Your task to perform on an android device: toggle wifi Image 0: 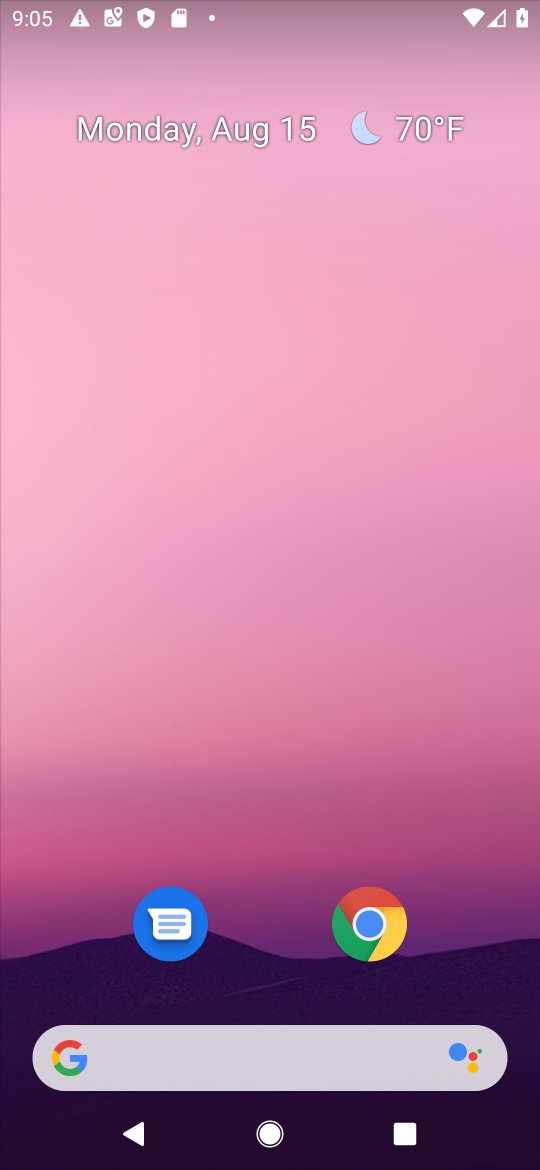
Step 0: drag from (494, 979) to (460, 207)
Your task to perform on an android device: toggle wifi Image 1: 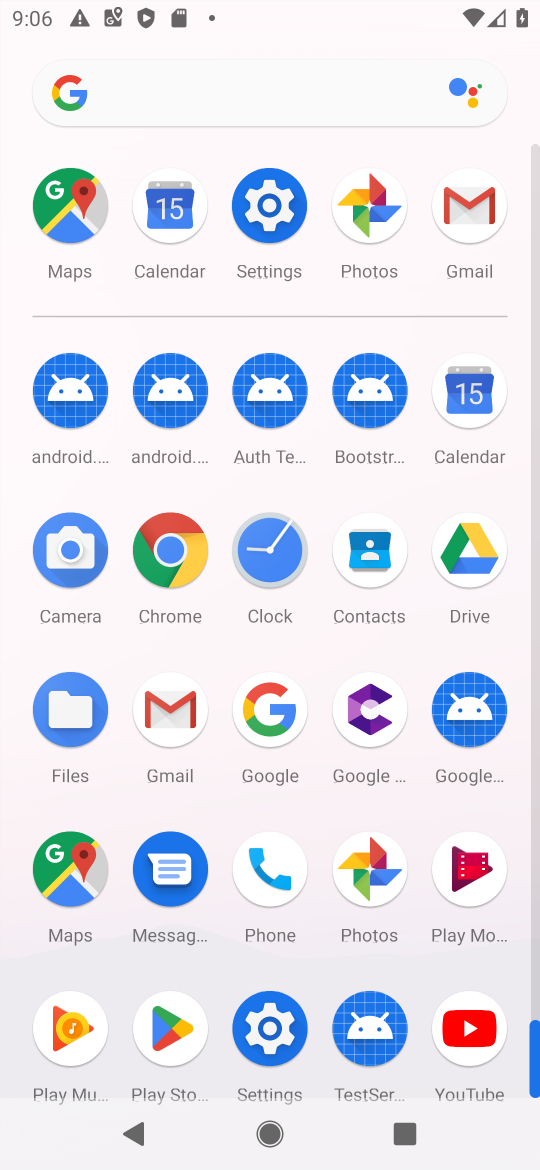
Step 1: click (273, 1032)
Your task to perform on an android device: toggle wifi Image 2: 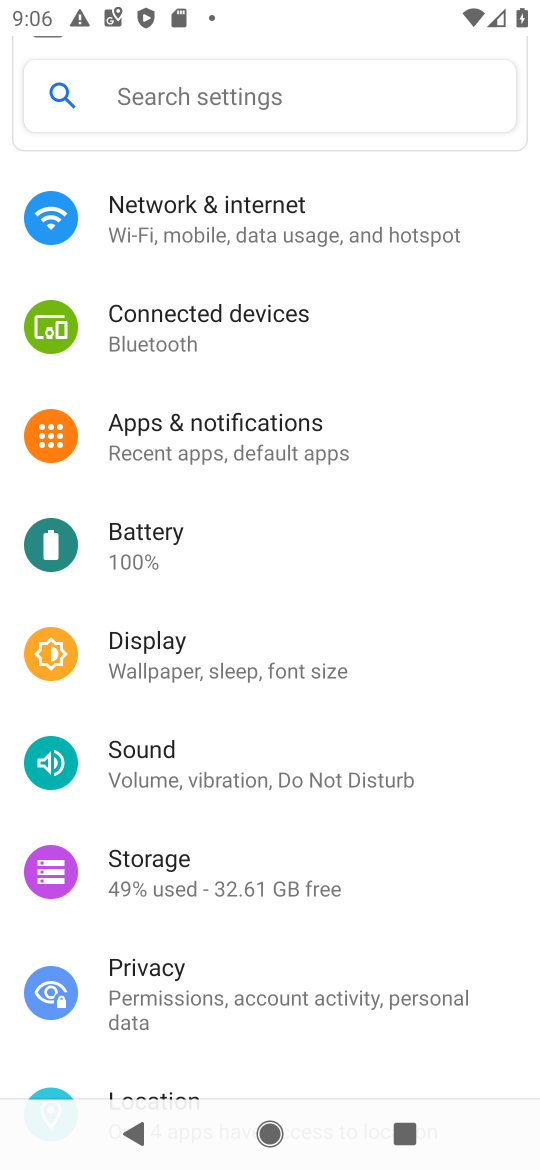
Step 2: click (173, 210)
Your task to perform on an android device: toggle wifi Image 3: 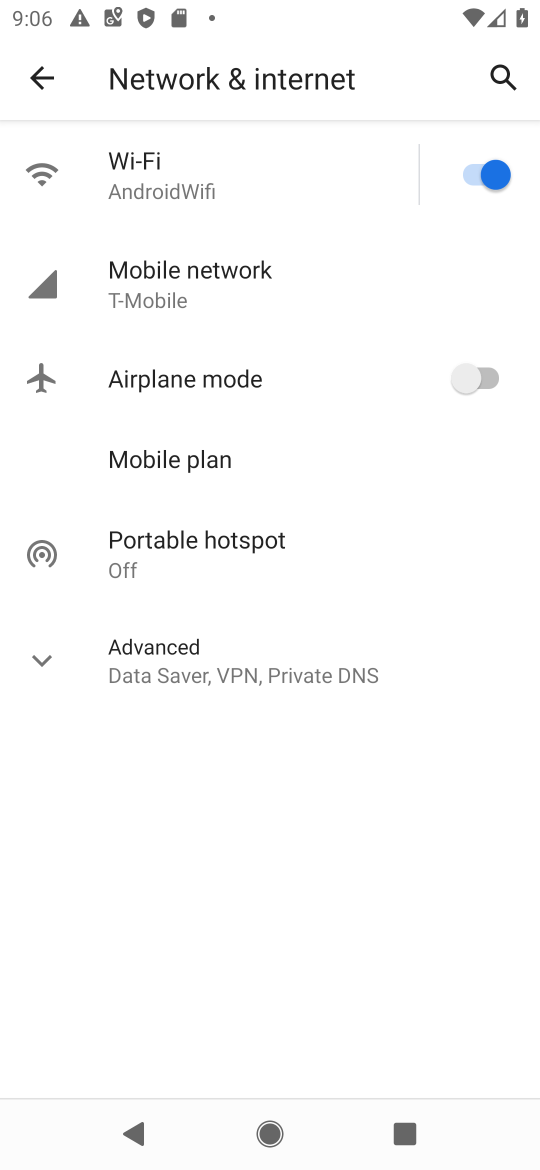
Step 3: click (474, 172)
Your task to perform on an android device: toggle wifi Image 4: 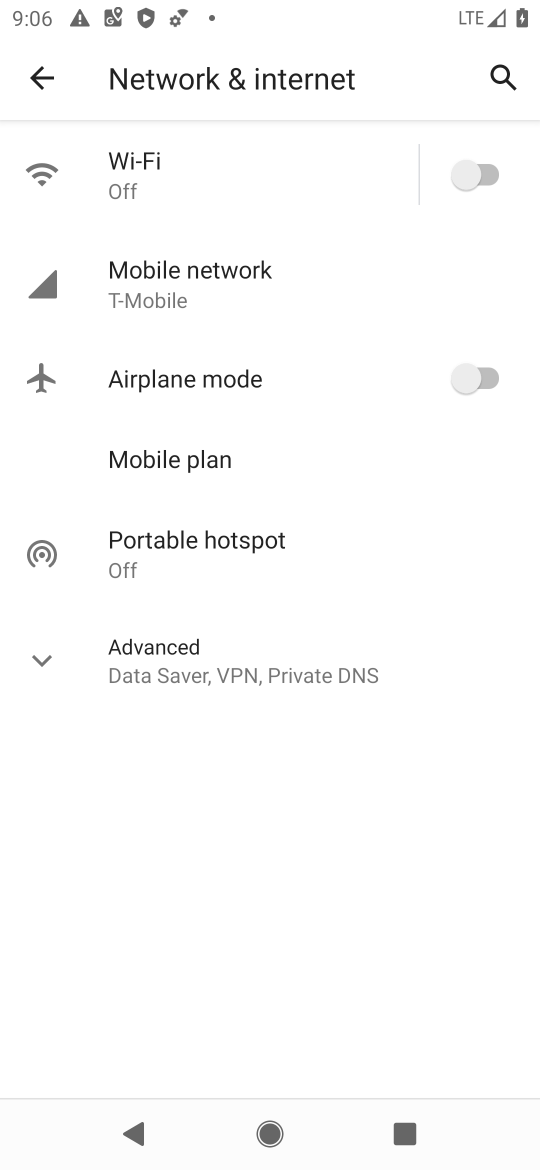
Step 4: task complete